Your task to perform on an android device: open app "Mercado Libre" (install if not already installed) Image 0: 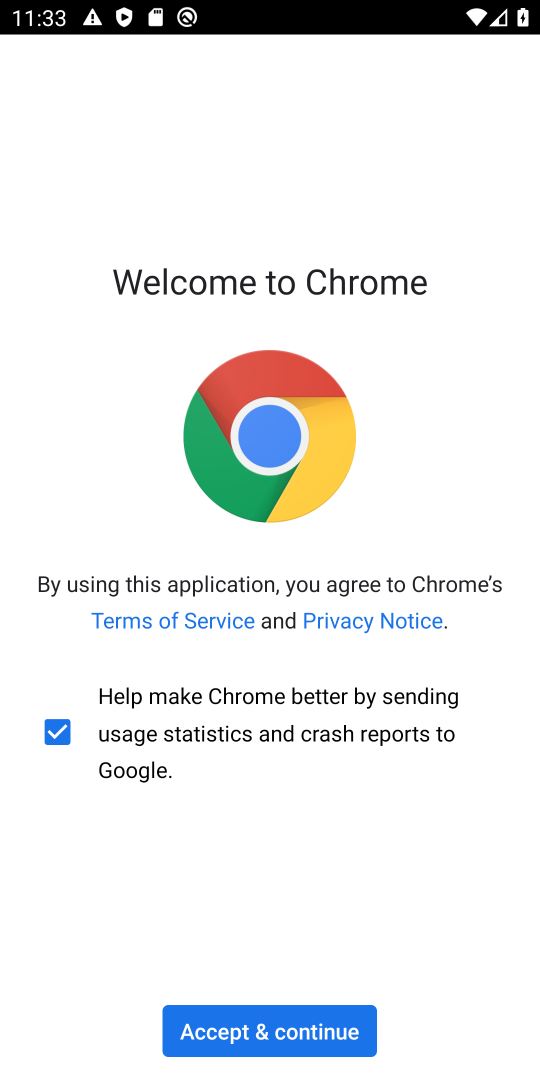
Step 0: press home button
Your task to perform on an android device: open app "Mercado Libre" (install if not already installed) Image 1: 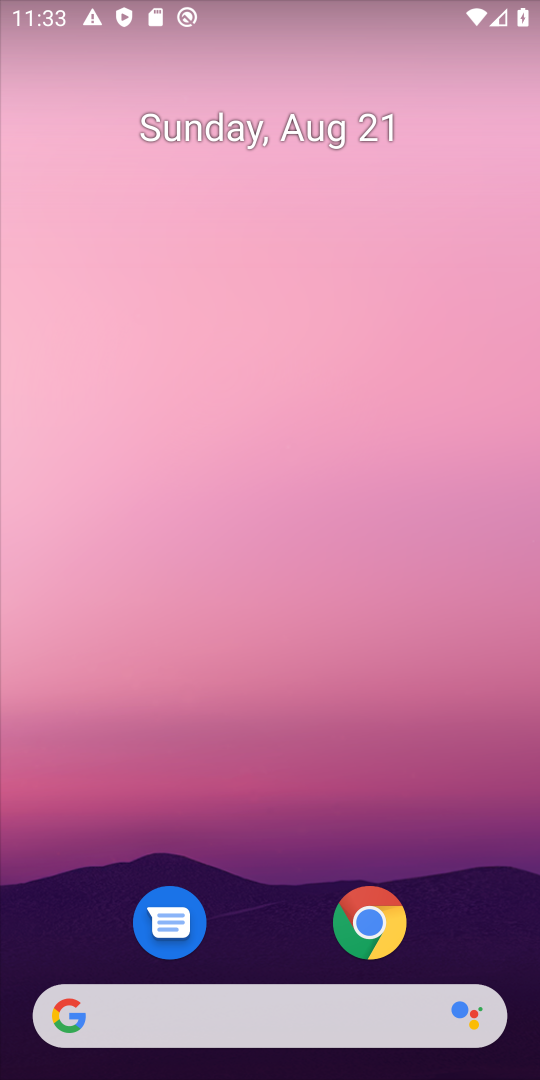
Step 1: drag from (309, 966) to (264, 50)
Your task to perform on an android device: open app "Mercado Libre" (install if not already installed) Image 2: 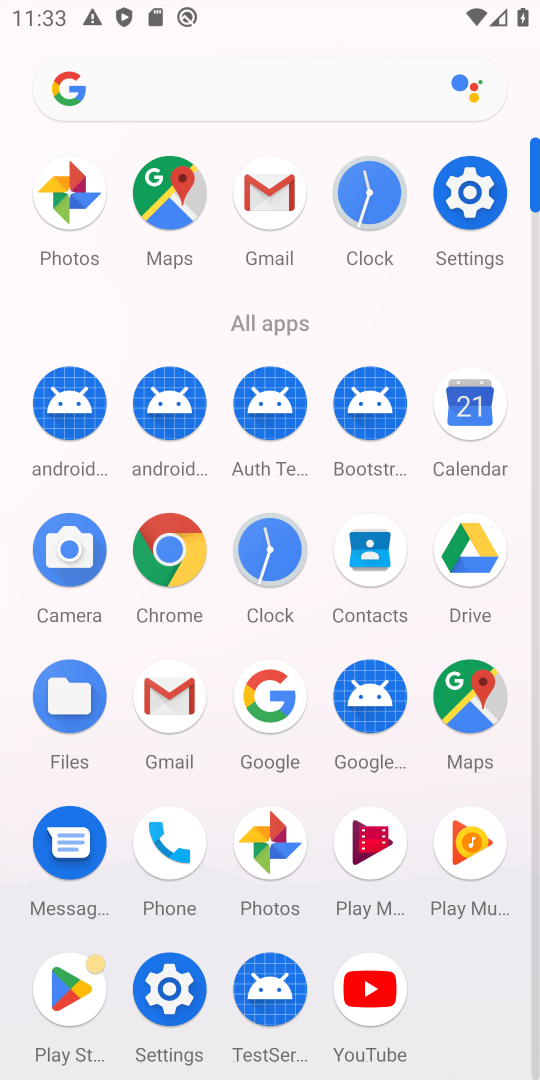
Step 2: click (73, 980)
Your task to perform on an android device: open app "Mercado Libre" (install if not already installed) Image 3: 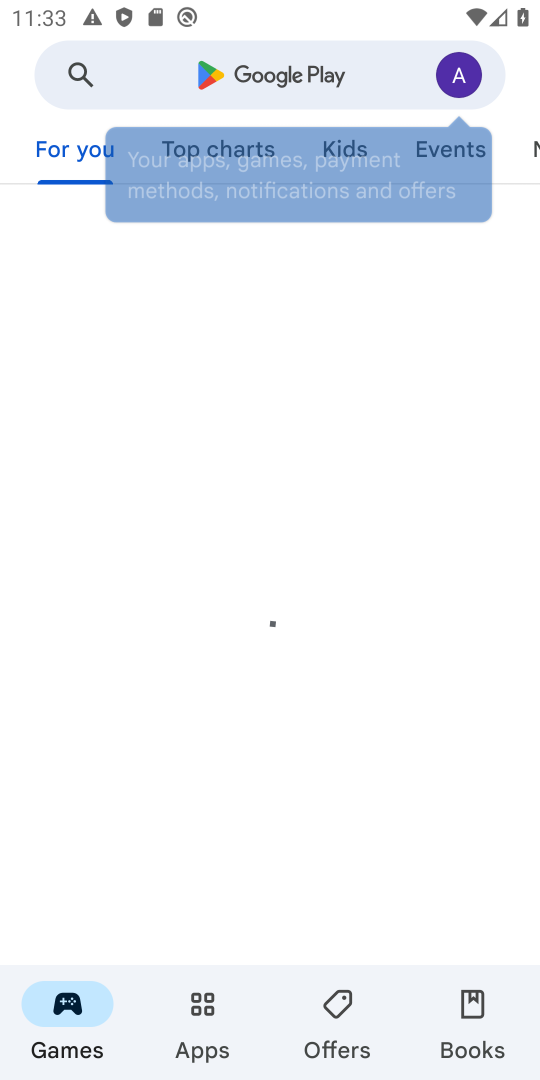
Step 3: click (265, 93)
Your task to perform on an android device: open app "Mercado Libre" (install if not already installed) Image 4: 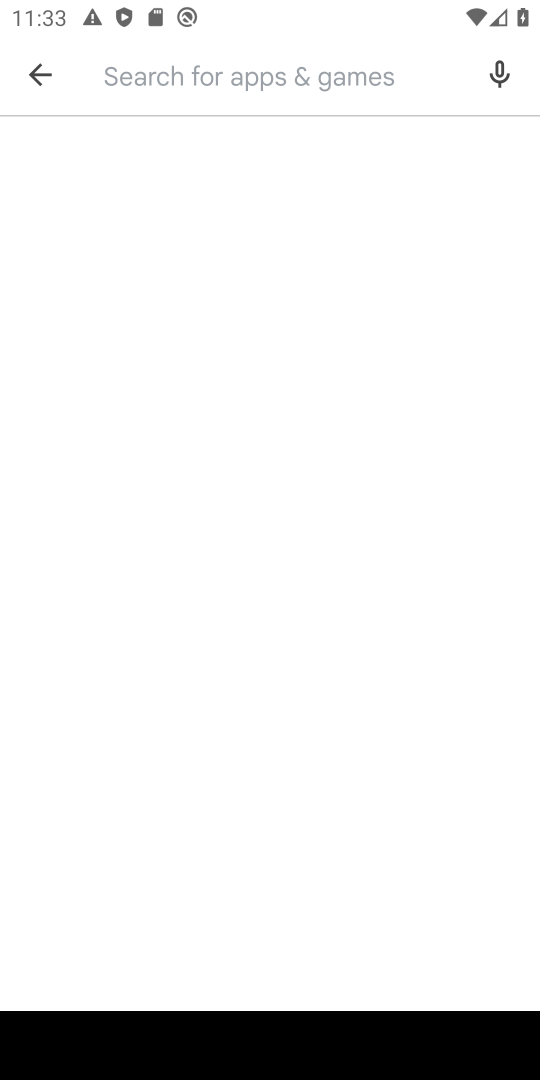
Step 4: type "Mercado Libre"
Your task to perform on an android device: open app "Mercado Libre" (install if not already installed) Image 5: 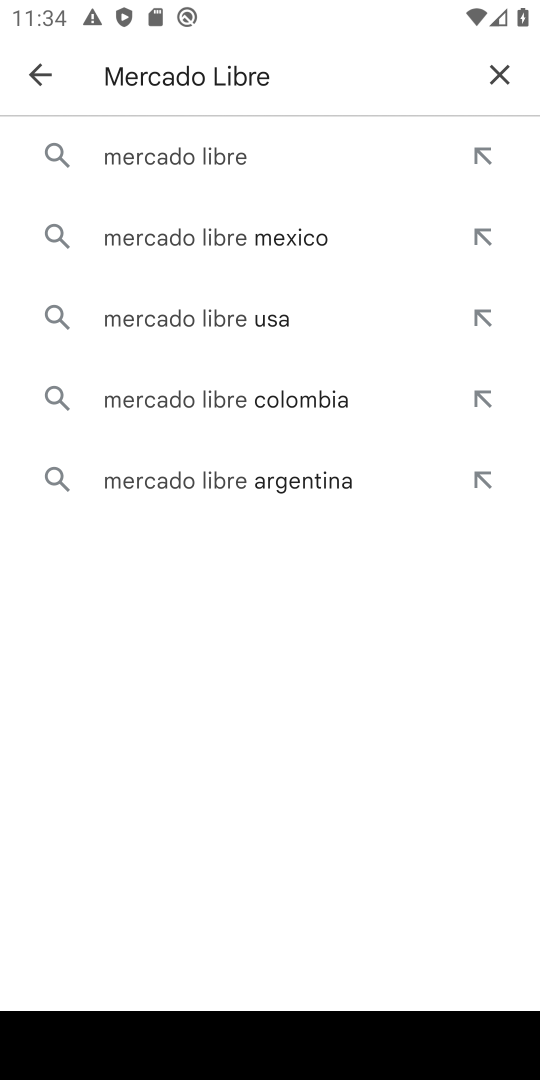
Step 5: click (157, 157)
Your task to perform on an android device: open app "Mercado Libre" (install if not already installed) Image 6: 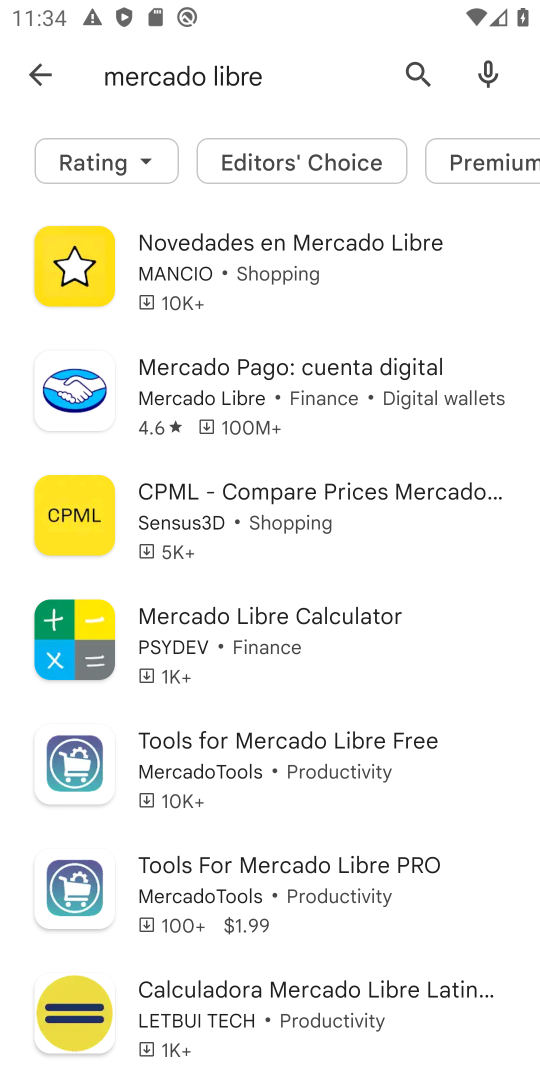
Step 6: task complete